Your task to perform on an android device: open app "Lyft - Rideshare, Bikes, Scooters & Transit" (install if not already installed), go to login, and select forgot password Image 0: 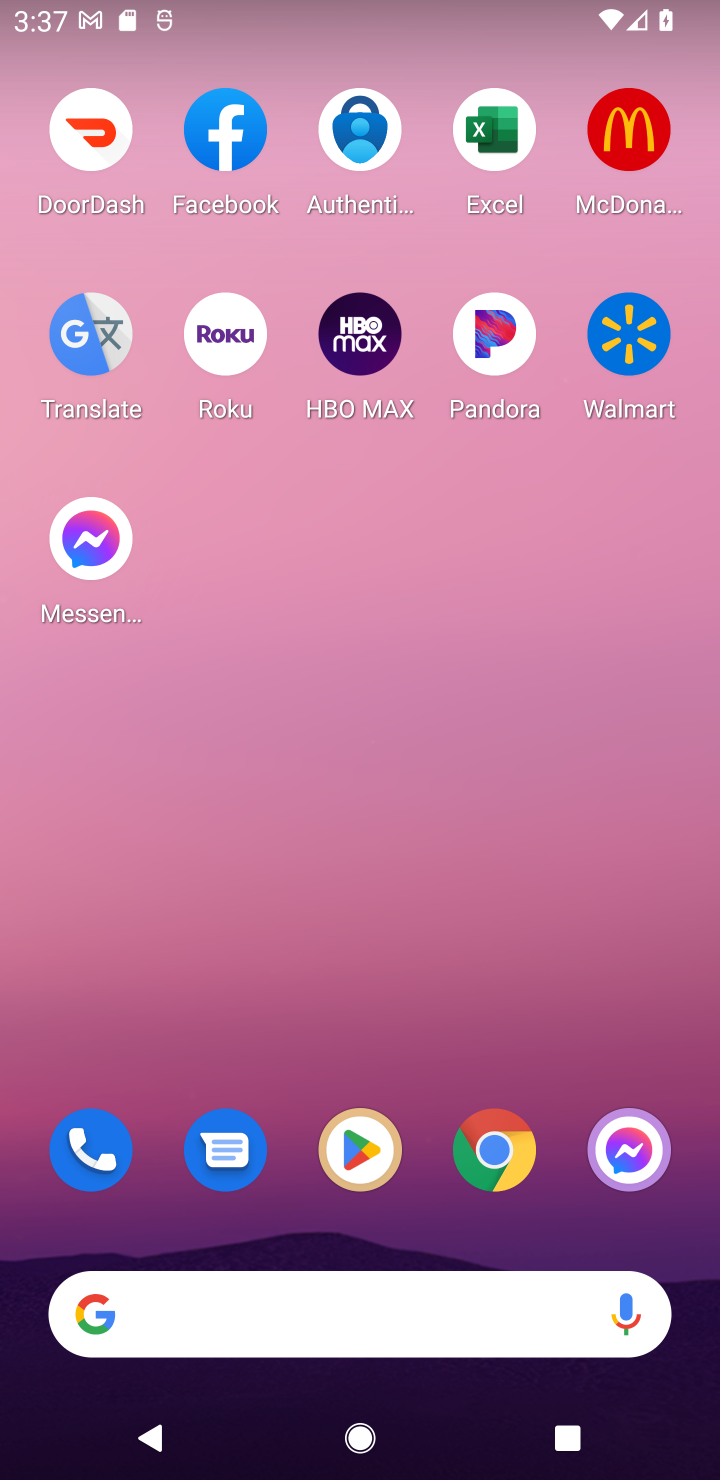
Step 0: click (361, 1144)
Your task to perform on an android device: open app "Lyft - Rideshare, Bikes, Scooters & Transit" (install if not already installed), go to login, and select forgot password Image 1: 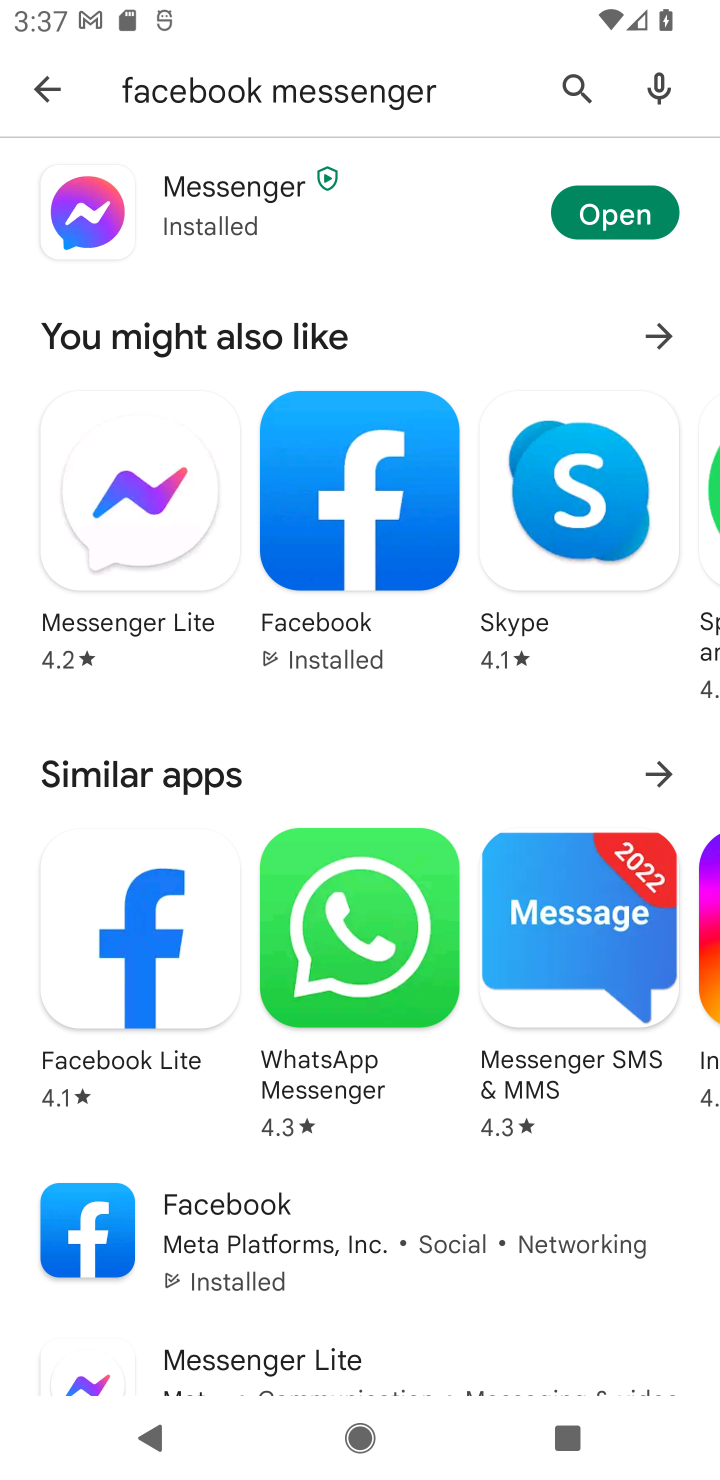
Step 1: click (578, 80)
Your task to perform on an android device: open app "Lyft - Rideshare, Bikes, Scooters & Transit" (install if not already installed), go to login, and select forgot password Image 2: 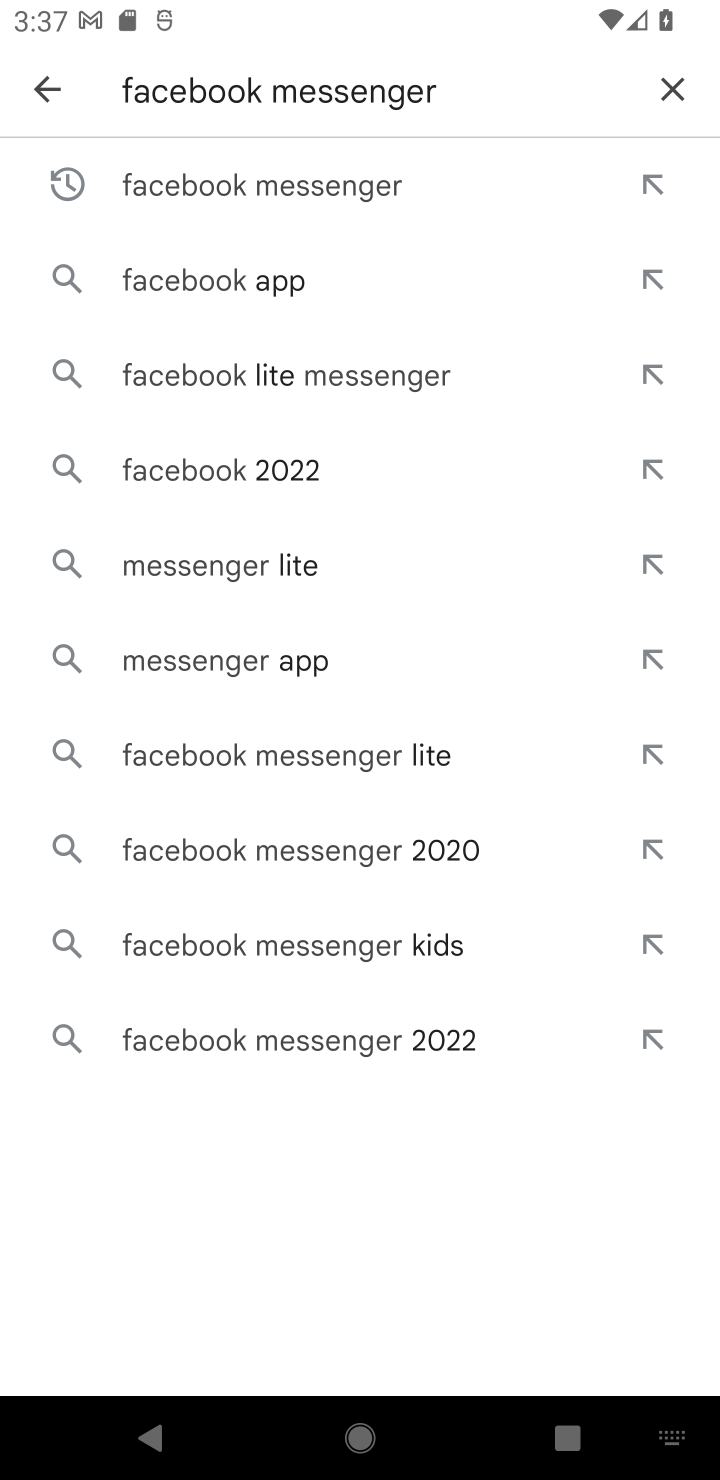
Step 2: click (671, 84)
Your task to perform on an android device: open app "Lyft - Rideshare, Bikes, Scooters & Transit" (install if not already installed), go to login, and select forgot password Image 3: 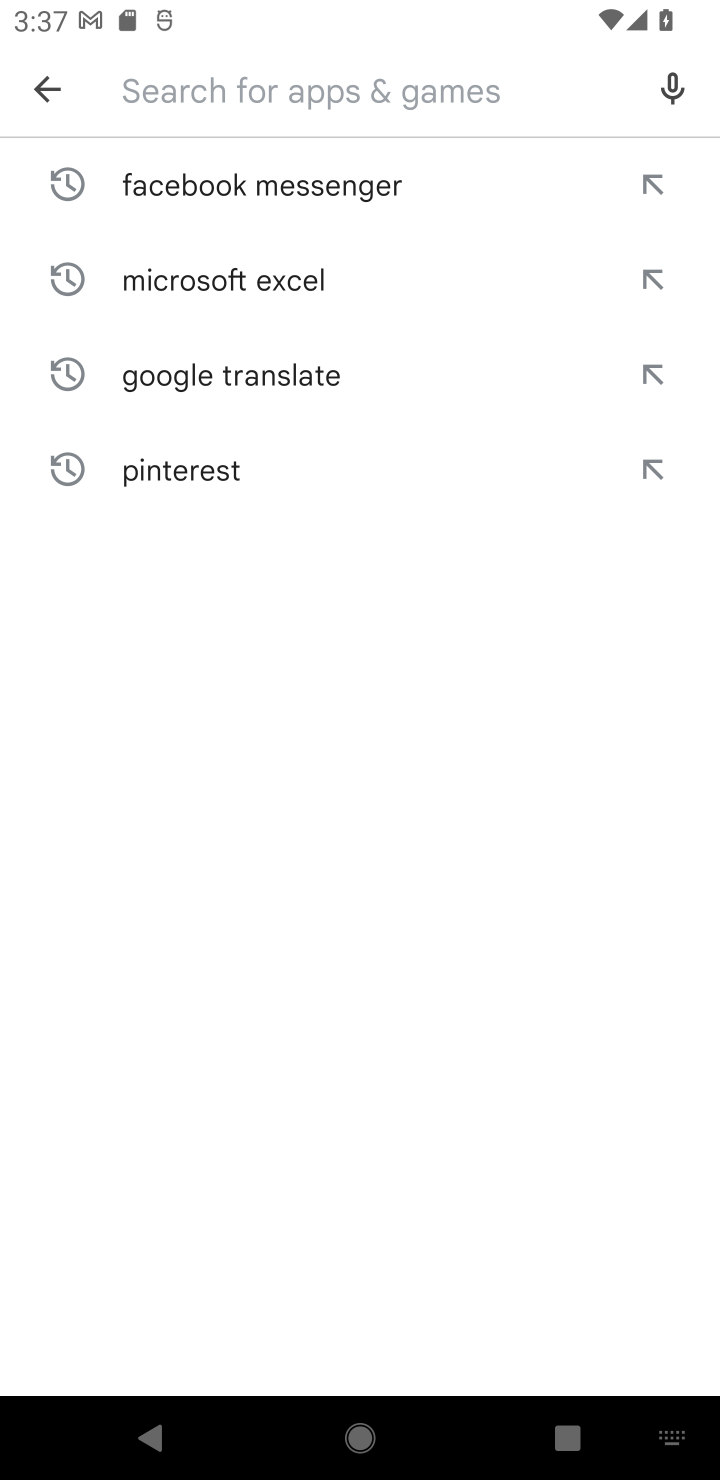
Step 3: type "Lyft - Rideshare, Bikes, Scooters & Transit"
Your task to perform on an android device: open app "Lyft - Rideshare, Bikes, Scooters & Transit" (install if not already installed), go to login, and select forgot password Image 4: 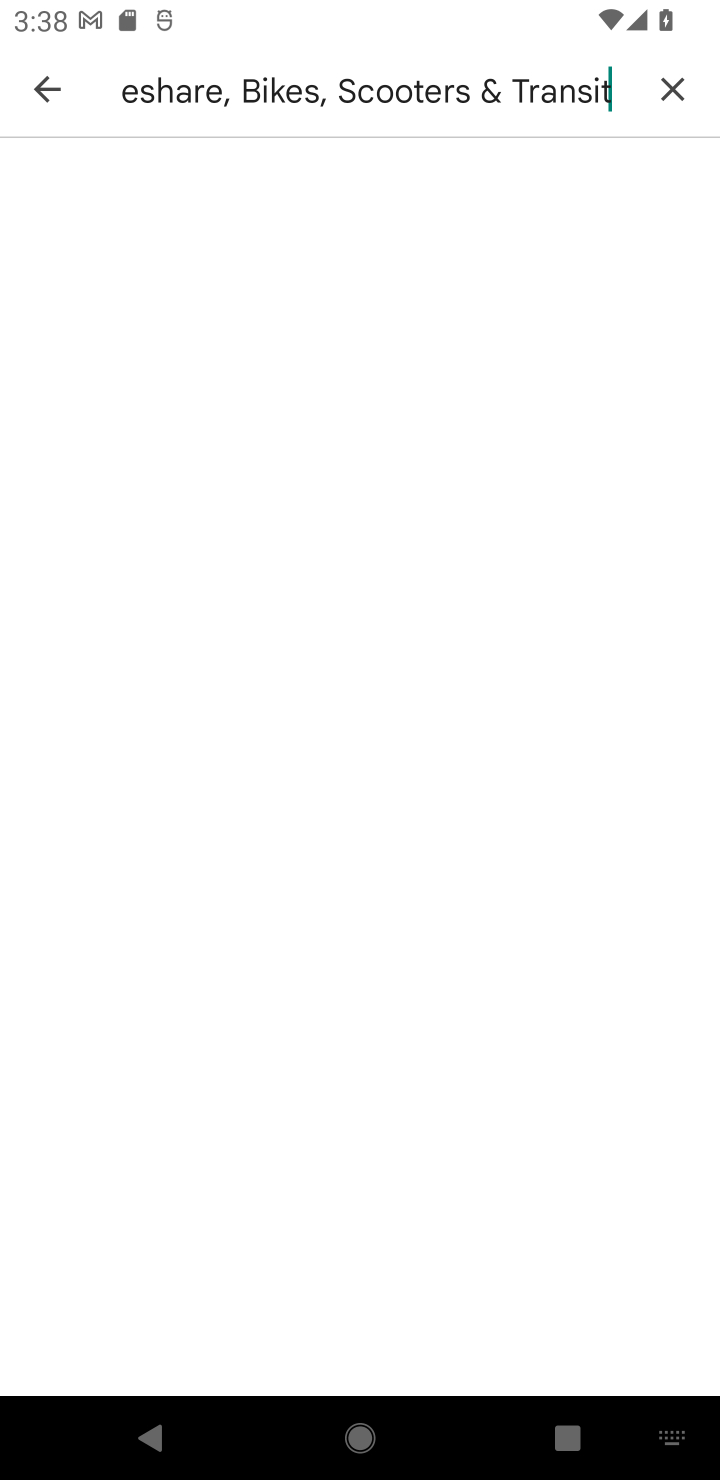
Step 4: task complete